Your task to perform on an android device: turn pop-ups on in chrome Image 0: 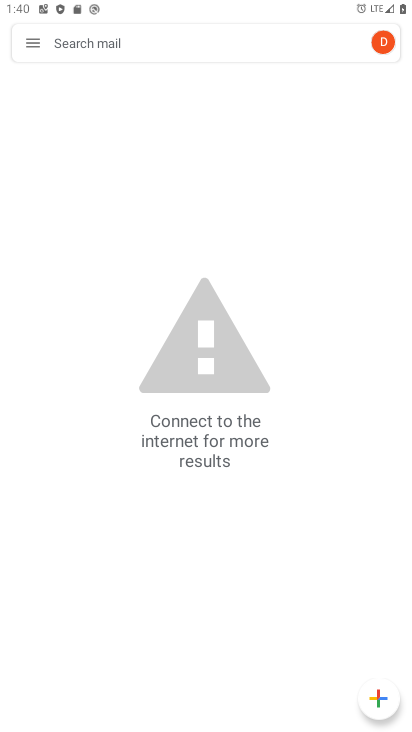
Step 0: drag from (355, 619) to (316, 157)
Your task to perform on an android device: turn pop-ups on in chrome Image 1: 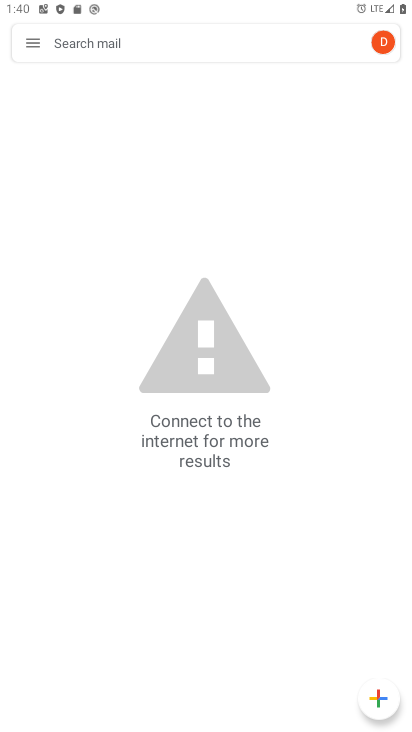
Step 1: press home button
Your task to perform on an android device: turn pop-ups on in chrome Image 2: 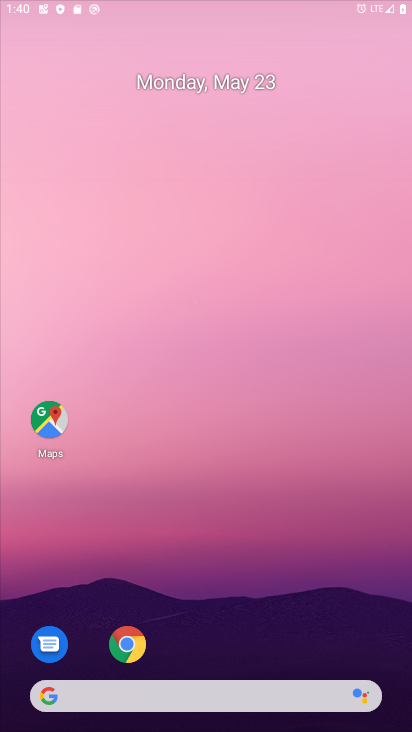
Step 2: drag from (321, 604) to (270, 121)
Your task to perform on an android device: turn pop-ups on in chrome Image 3: 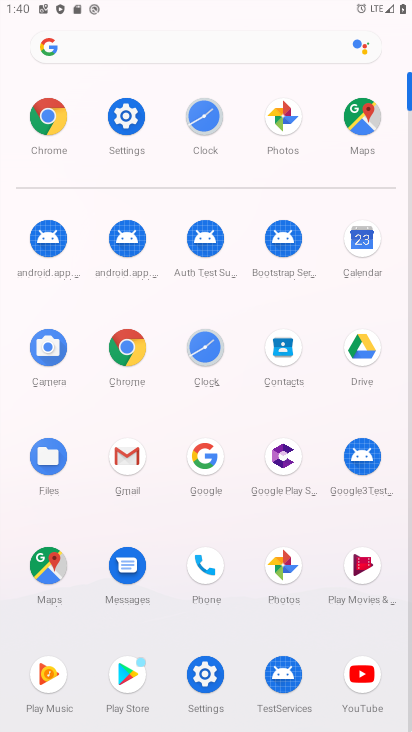
Step 3: click (43, 125)
Your task to perform on an android device: turn pop-ups on in chrome Image 4: 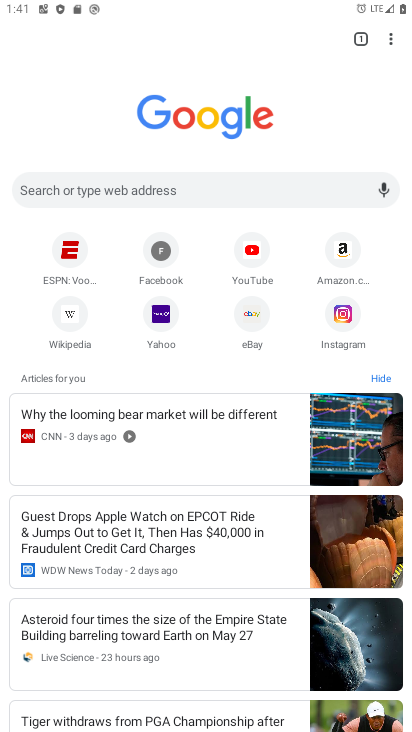
Step 4: click (393, 38)
Your task to perform on an android device: turn pop-ups on in chrome Image 5: 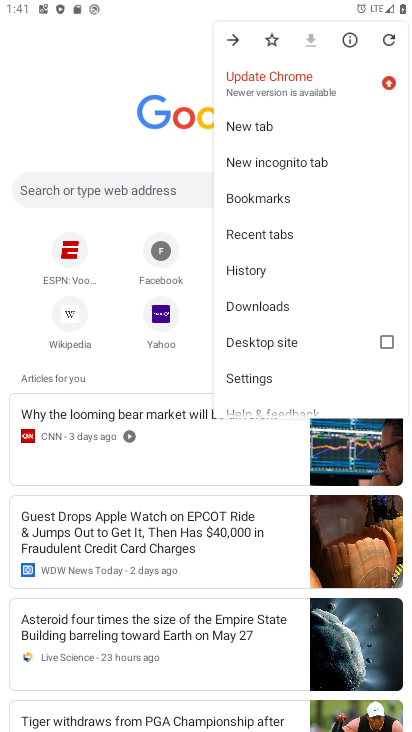
Step 5: click (248, 377)
Your task to perform on an android device: turn pop-ups on in chrome Image 6: 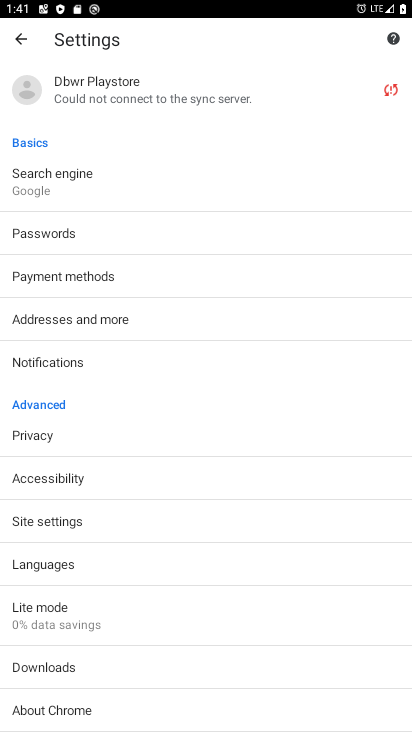
Step 6: click (102, 527)
Your task to perform on an android device: turn pop-ups on in chrome Image 7: 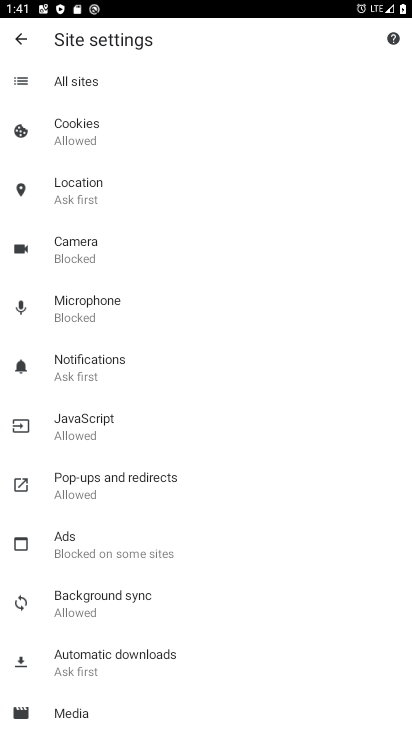
Step 7: click (101, 492)
Your task to perform on an android device: turn pop-ups on in chrome Image 8: 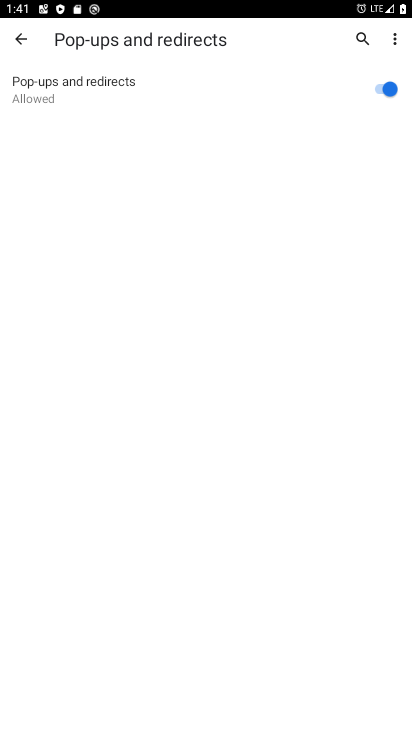
Step 8: task complete